Your task to perform on an android device: toggle pop-ups in chrome Image 0: 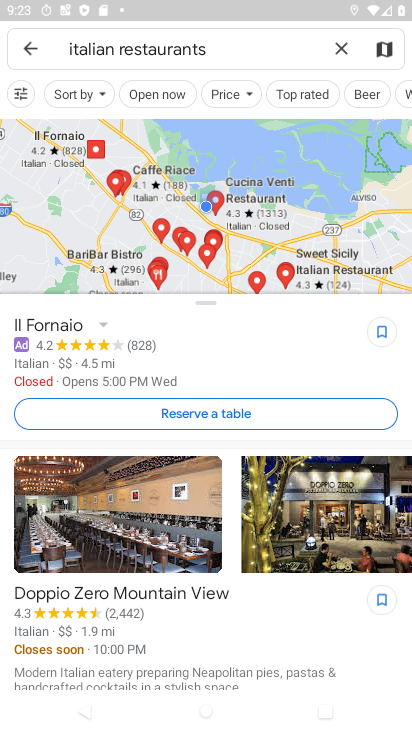
Step 0: press home button
Your task to perform on an android device: toggle pop-ups in chrome Image 1: 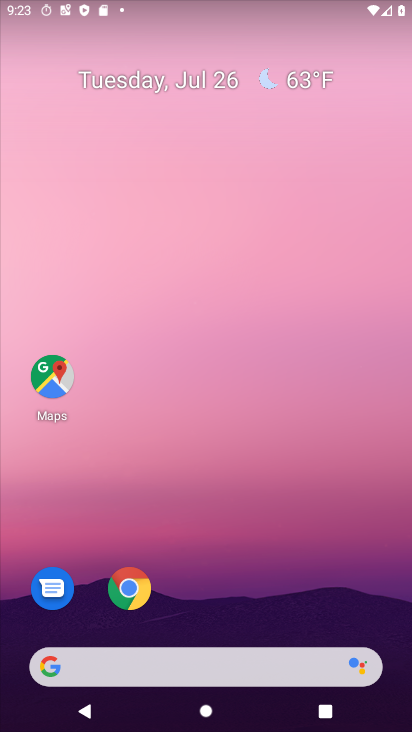
Step 1: click (136, 585)
Your task to perform on an android device: toggle pop-ups in chrome Image 2: 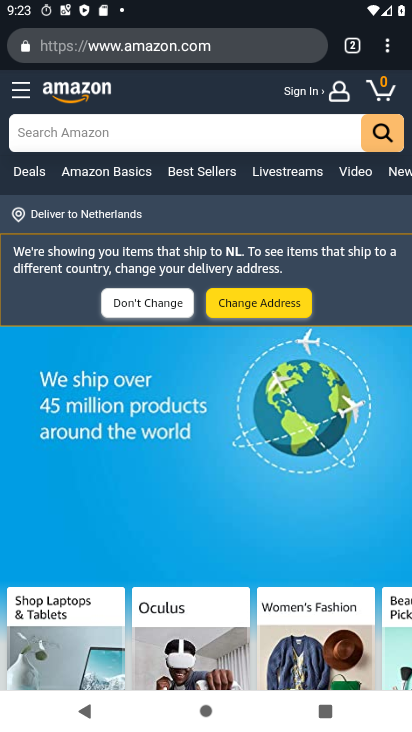
Step 2: click (396, 37)
Your task to perform on an android device: toggle pop-ups in chrome Image 3: 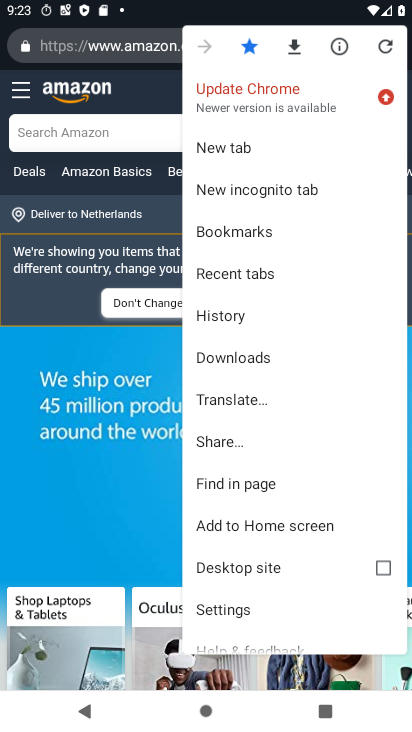
Step 3: click (267, 601)
Your task to perform on an android device: toggle pop-ups in chrome Image 4: 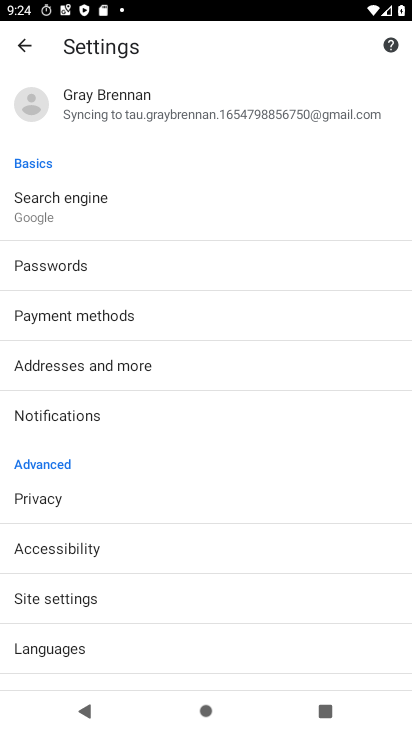
Step 4: click (129, 610)
Your task to perform on an android device: toggle pop-ups in chrome Image 5: 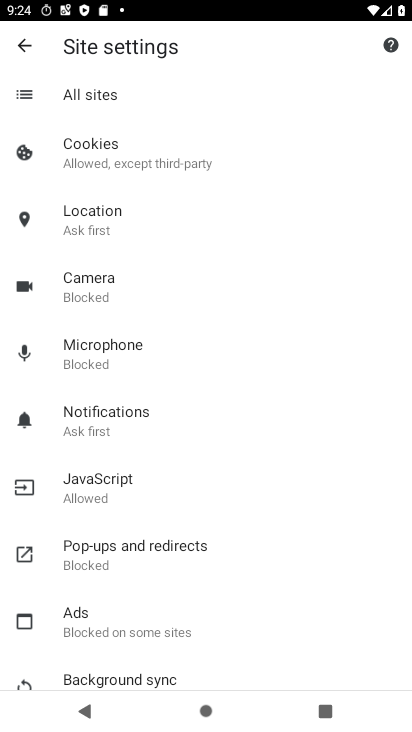
Step 5: click (150, 557)
Your task to perform on an android device: toggle pop-ups in chrome Image 6: 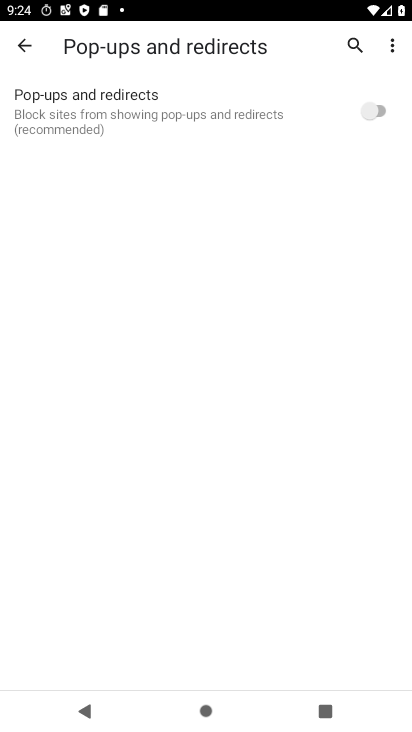
Step 6: click (377, 127)
Your task to perform on an android device: toggle pop-ups in chrome Image 7: 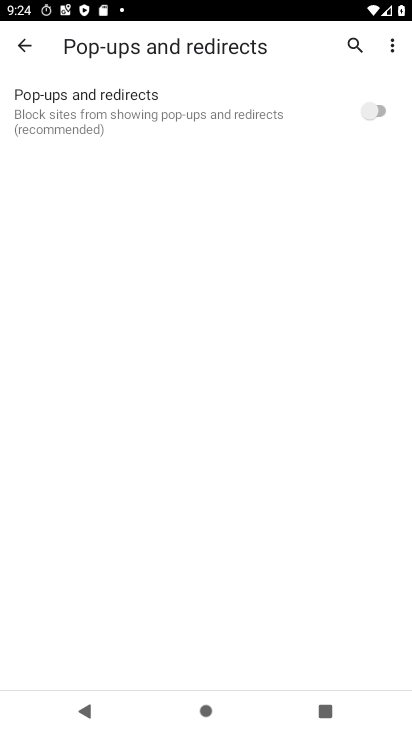
Step 7: click (377, 127)
Your task to perform on an android device: toggle pop-ups in chrome Image 8: 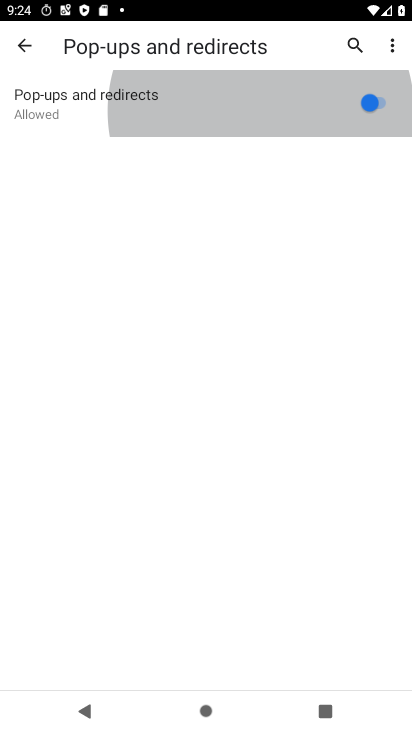
Step 8: click (377, 127)
Your task to perform on an android device: toggle pop-ups in chrome Image 9: 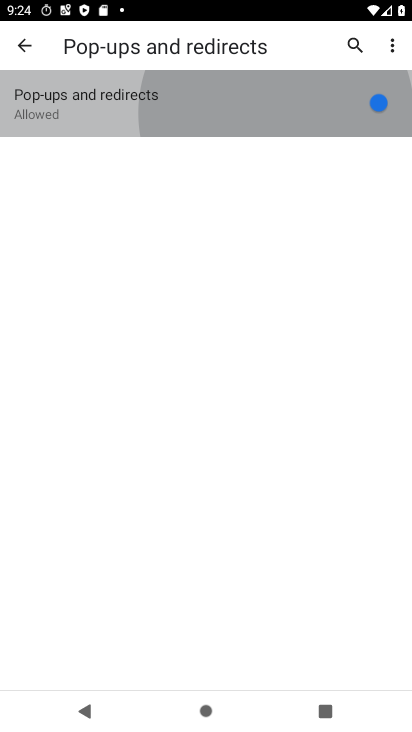
Step 9: click (377, 127)
Your task to perform on an android device: toggle pop-ups in chrome Image 10: 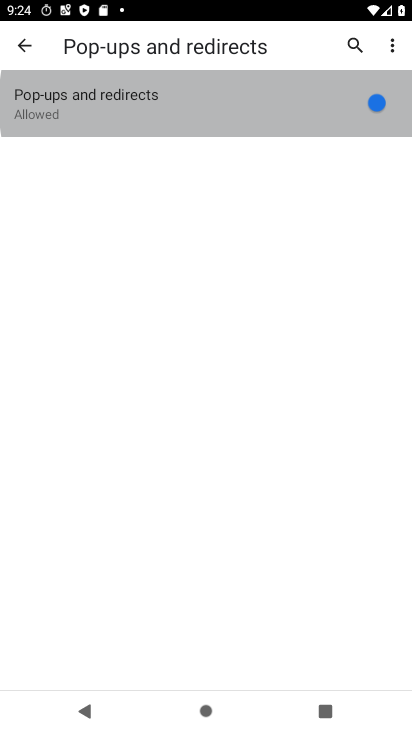
Step 10: click (377, 127)
Your task to perform on an android device: toggle pop-ups in chrome Image 11: 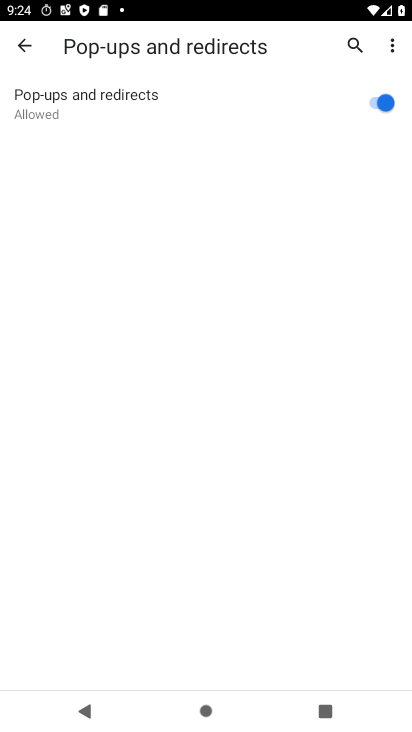
Step 11: click (377, 127)
Your task to perform on an android device: toggle pop-ups in chrome Image 12: 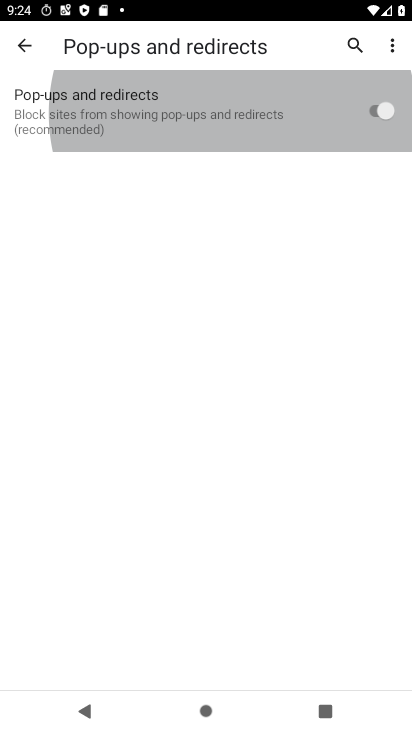
Step 12: click (377, 127)
Your task to perform on an android device: toggle pop-ups in chrome Image 13: 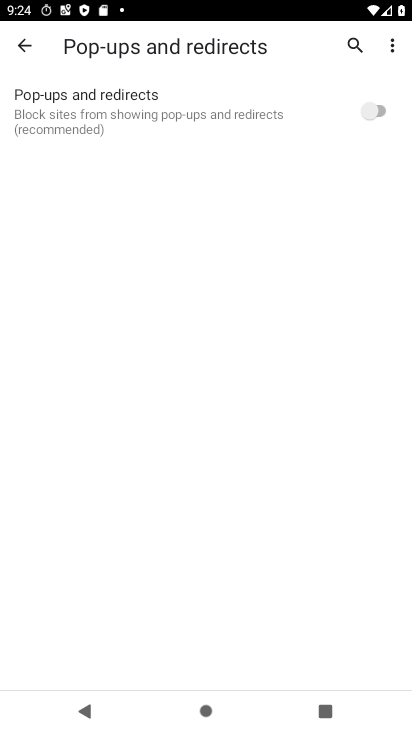
Step 13: task complete